Your task to perform on an android device: turn off picture-in-picture Image 0: 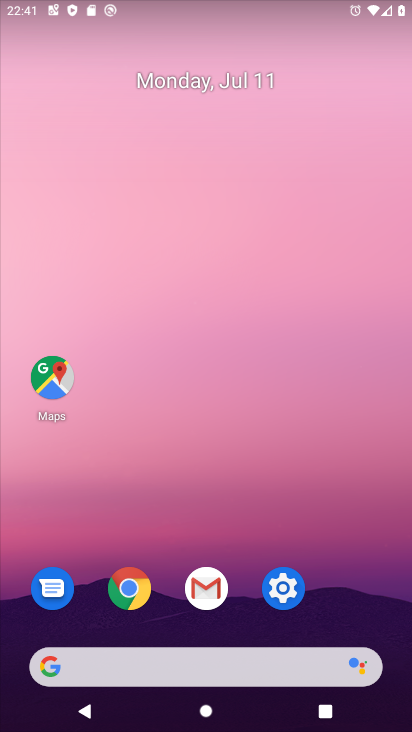
Step 0: press home button
Your task to perform on an android device: turn off picture-in-picture Image 1: 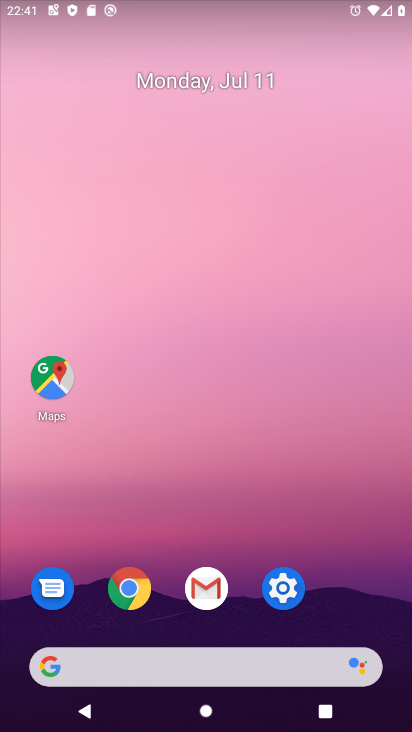
Step 1: drag from (316, 675) to (273, 87)
Your task to perform on an android device: turn off picture-in-picture Image 2: 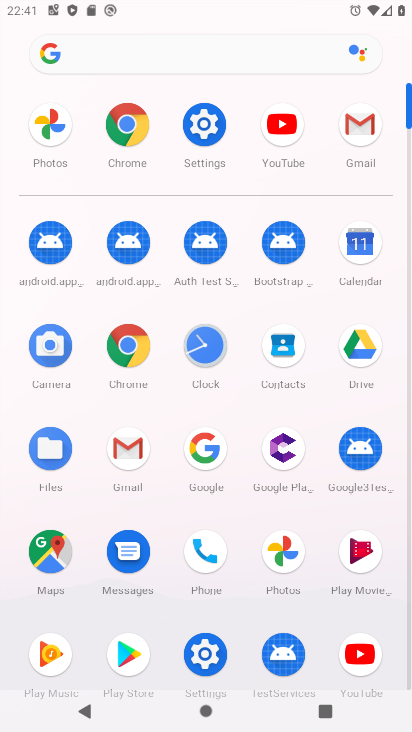
Step 2: click (283, 119)
Your task to perform on an android device: turn off picture-in-picture Image 3: 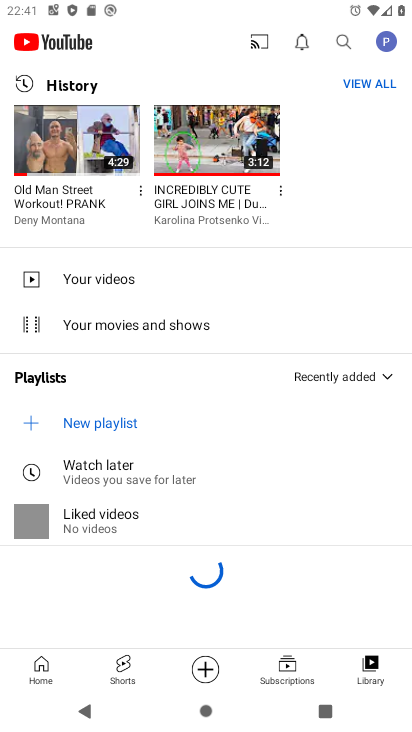
Step 3: click (380, 39)
Your task to perform on an android device: turn off picture-in-picture Image 4: 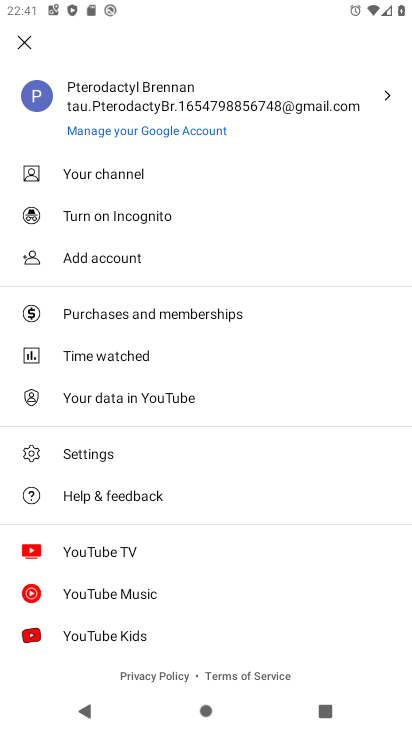
Step 4: click (107, 448)
Your task to perform on an android device: turn off picture-in-picture Image 5: 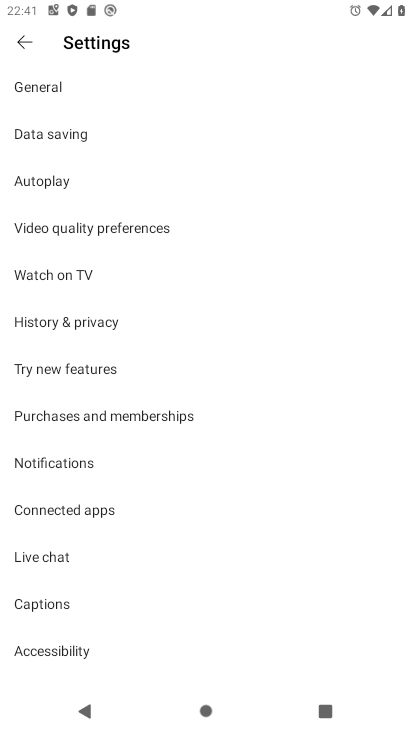
Step 5: click (60, 95)
Your task to perform on an android device: turn off picture-in-picture Image 6: 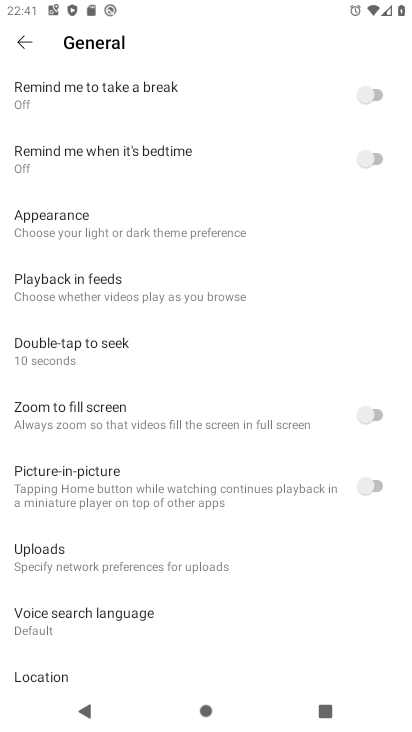
Step 6: click (126, 489)
Your task to perform on an android device: turn off picture-in-picture Image 7: 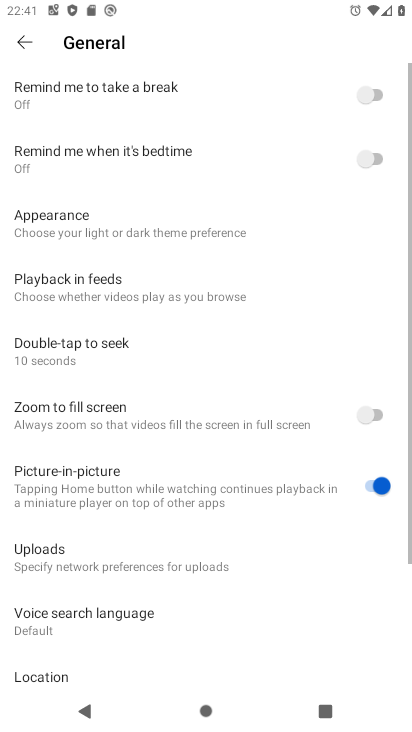
Step 7: click (126, 489)
Your task to perform on an android device: turn off picture-in-picture Image 8: 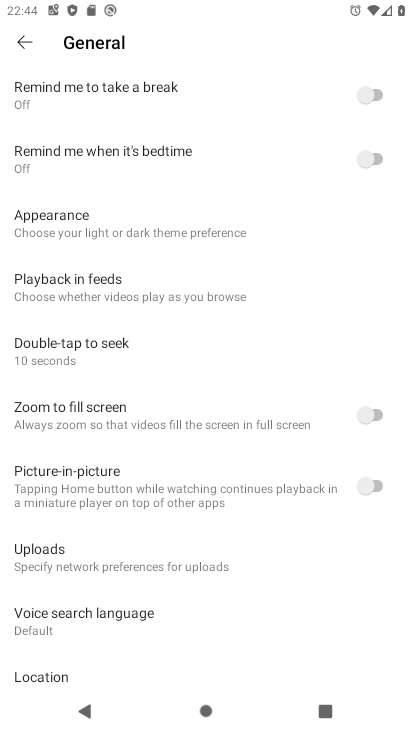
Step 8: task complete